Your task to perform on an android device: open a new tab in the chrome app Image 0: 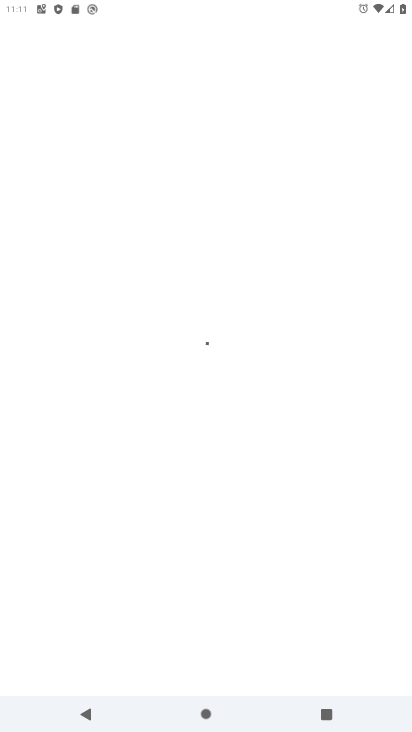
Step 0: press home button
Your task to perform on an android device: open a new tab in the chrome app Image 1: 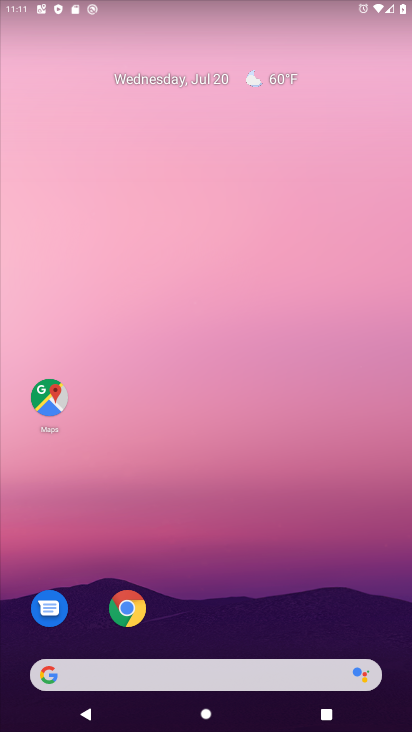
Step 1: click (126, 610)
Your task to perform on an android device: open a new tab in the chrome app Image 2: 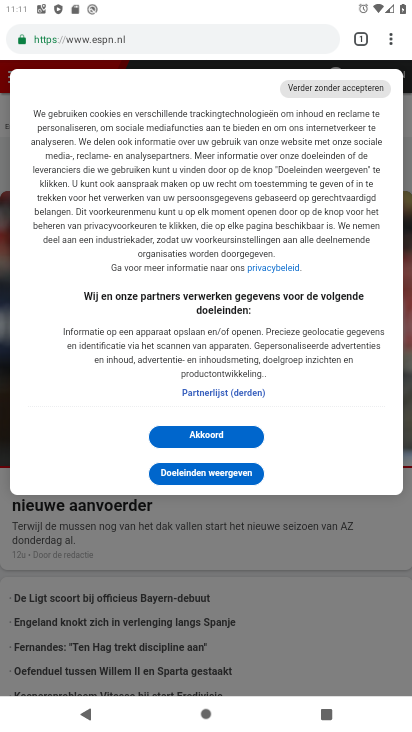
Step 2: click (389, 44)
Your task to perform on an android device: open a new tab in the chrome app Image 3: 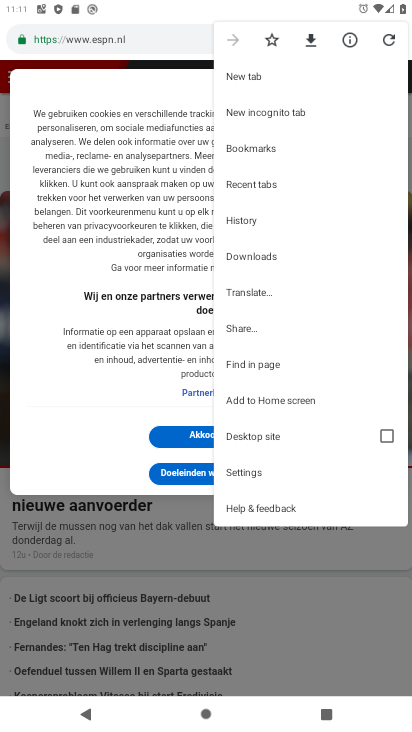
Step 3: click (262, 78)
Your task to perform on an android device: open a new tab in the chrome app Image 4: 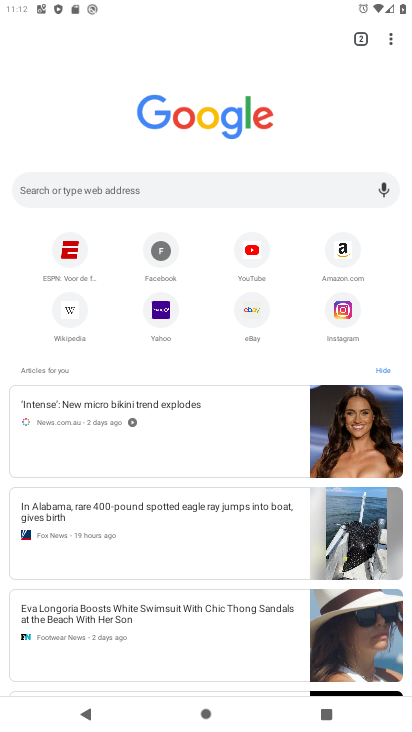
Step 4: task complete